Your task to perform on an android device: change the clock display to analog Image 0: 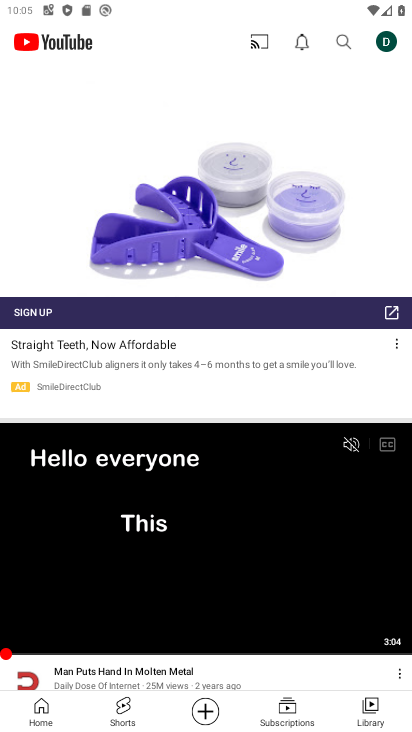
Step 0: press home button
Your task to perform on an android device: change the clock display to analog Image 1: 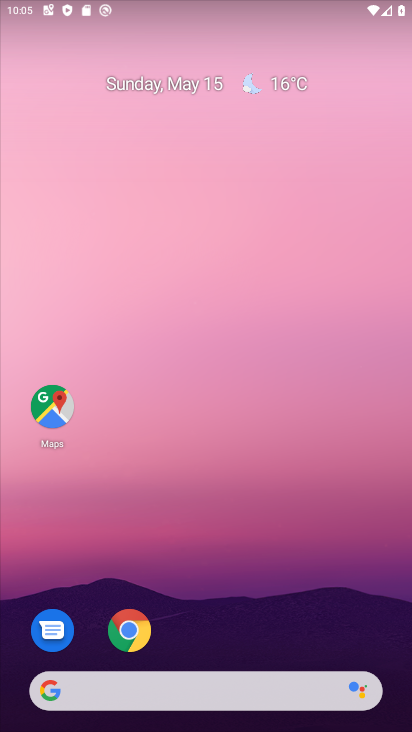
Step 1: drag from (205, 584) to (205, 228)
Your task to perform on an android device: change the clock display to analog Image 2: 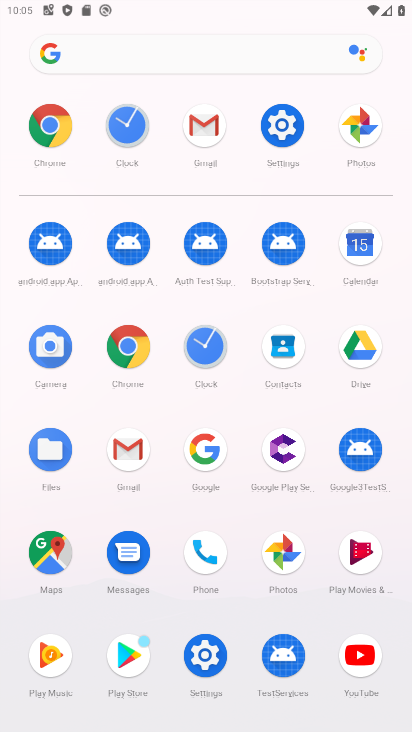
Step 2: click (196, 333)
Your task to perform on an android device: change the clock display to analog Image 3: 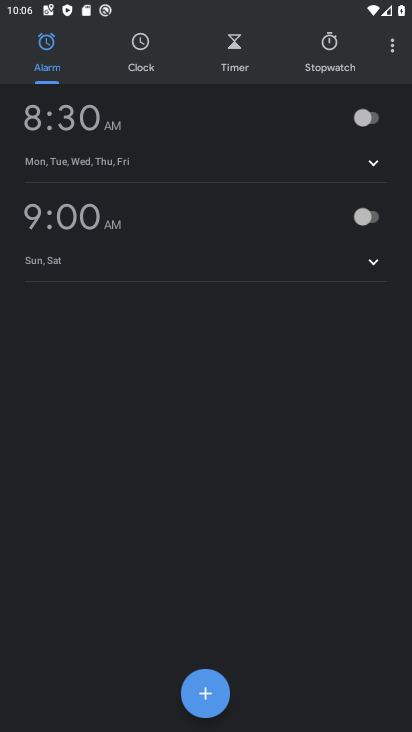
Step 3: click (386, 42)
Your task to perform on an android device: change the clock display to analog Image 4: 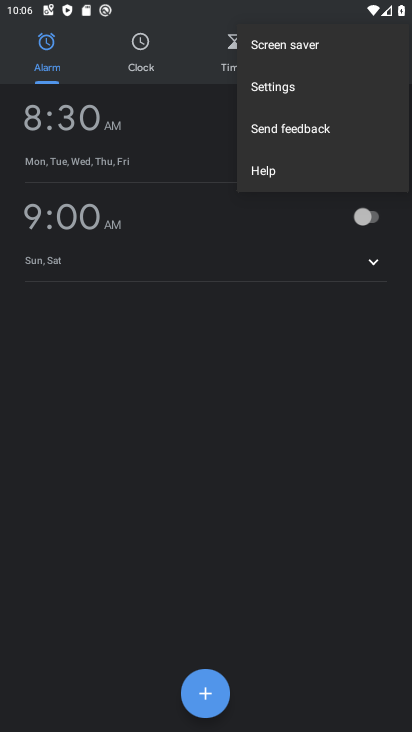
Step 4: click (308, 93)
Your task to perform on an android device: change the clock display to analog Image 5: 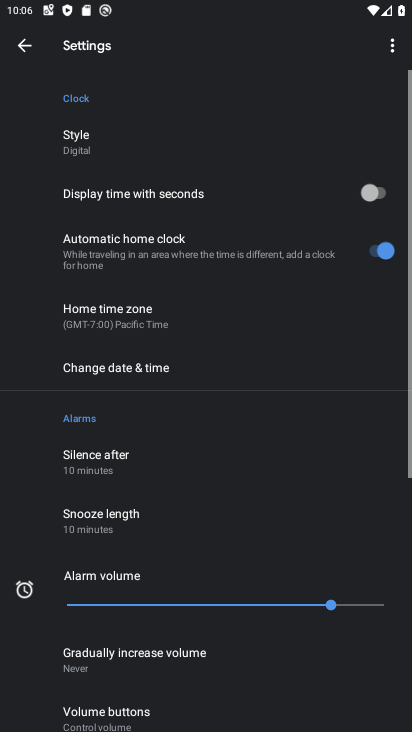
Step 5: click (129, 146)
Your task to perform on an android device: change the clock display to analog Image 6: 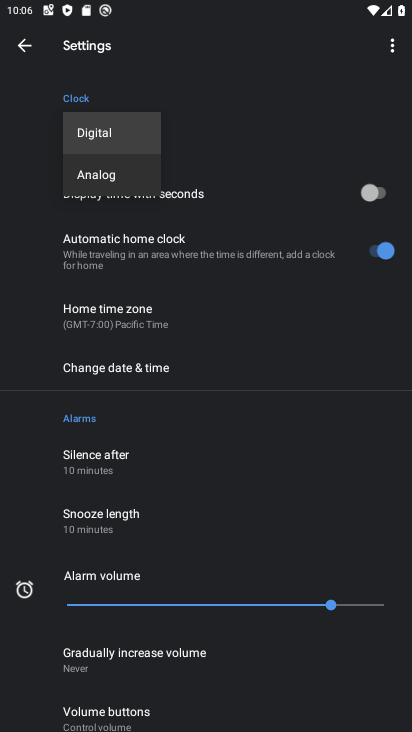
Step 6: click (128, 178)
Your task to perform on an android device: change the clock display to analog Image 7: 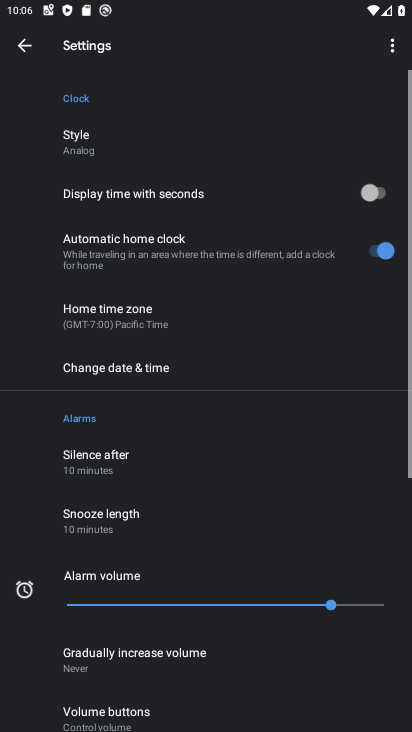
Step 7: task complete